Your task to perform on an android device: change notification settings in the gmail app Image 0: 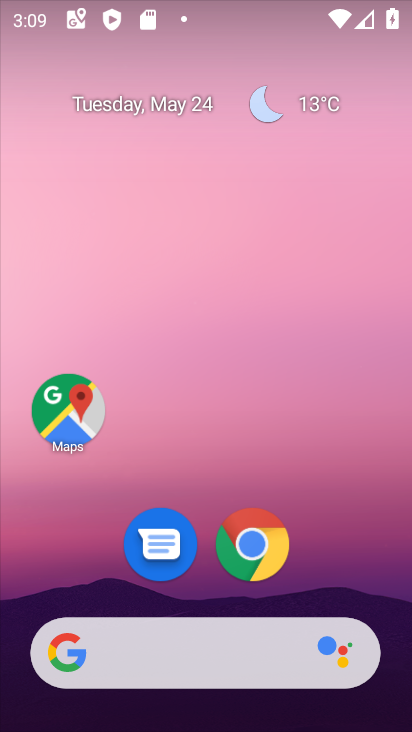
Step 0: drag from (351, 532) to (309, 3)
Your task to perform on an android device: change notification settings in the gmail app Image 1: 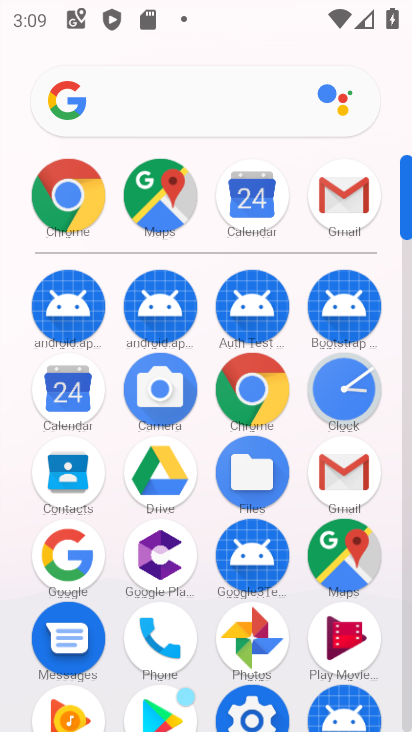
Step 1: click (348, 202)
Your task to perform on an android device: change notification settings in the gmail app Image 2: 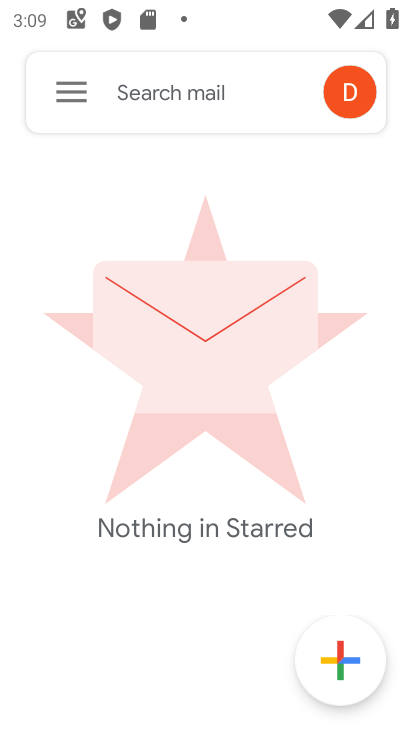
Step 2: click (85, 91)
Your task to perform on an android device: change notification settings in the gmail app Image 3: 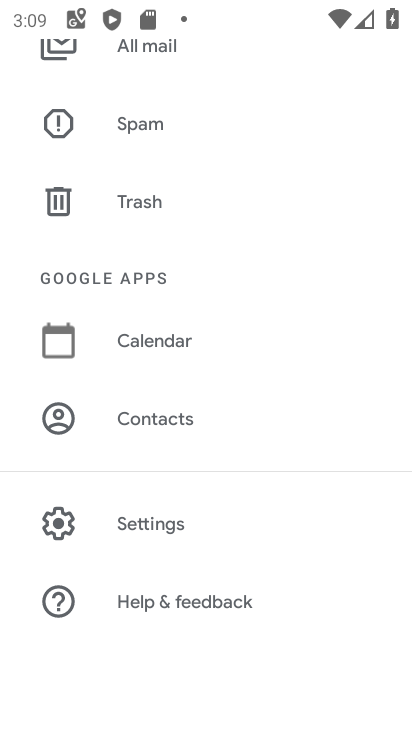
Step 3: click (133, 534)
Your task to perform on an android device: change notification settings in the gmail app Image 4: 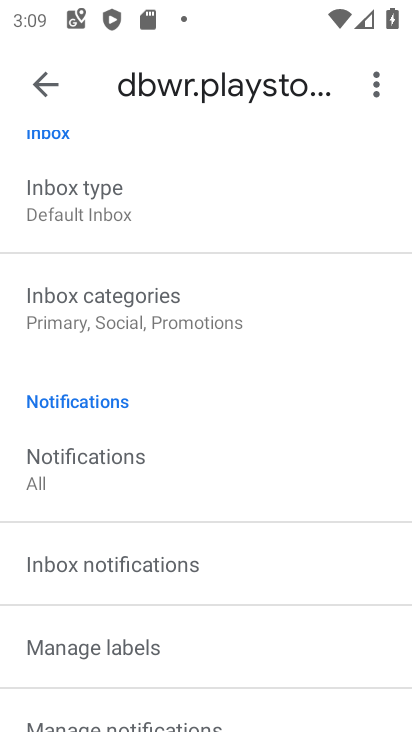
Step 4: drag from (201, 663) to (220, 324)
Your task to perform on an android device: change notification settings in the gmail app Image 5: 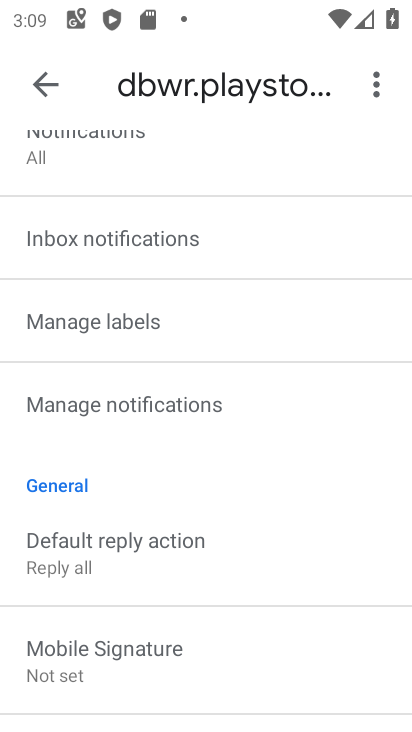
Step 5: drag from (165, 202) to (185, 535)
Your task to perform on an android device: change notification settings in the gmail app Image 6: 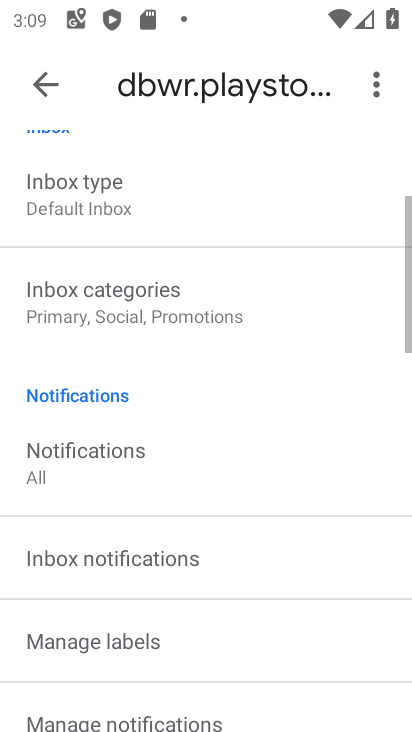
Step 6: click (90, 450)
Your task to perform on an android device: change notification settings in the gmail app Image 7: 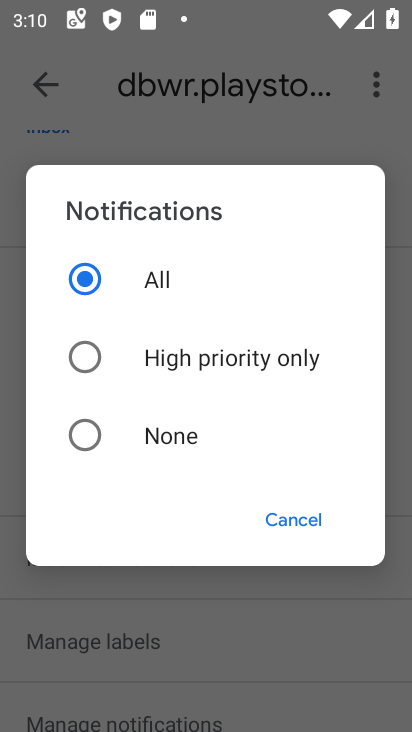
Step 7: click (103, 360)
Your task to perform on an android device: change notification settings in the gmail app Image 8: 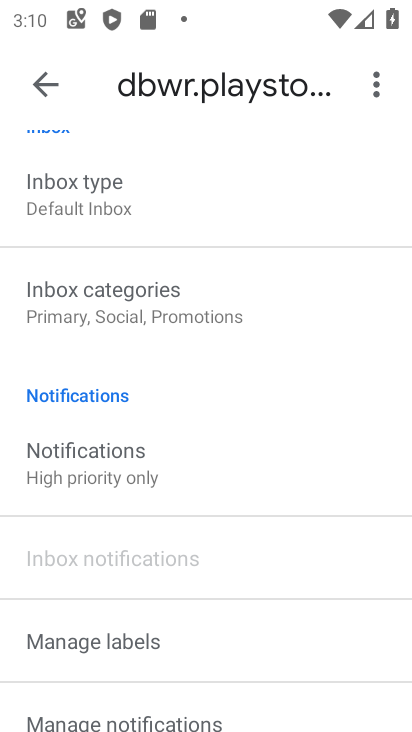
Step 8: task complete